Your task to perform on an android device: Check the weather Image 0: 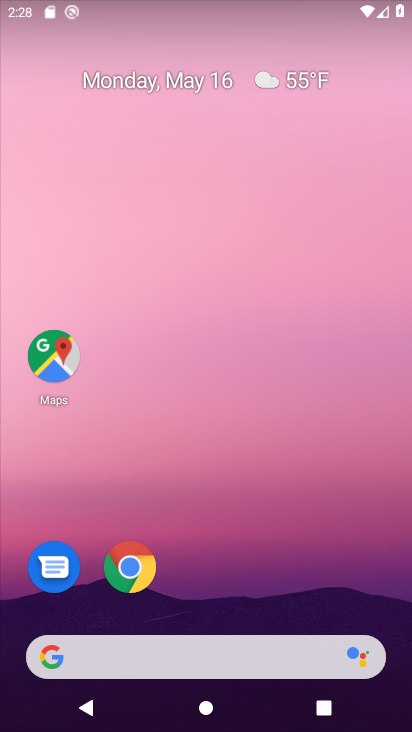
Step 0: click (291, 78)
Your task to perform on an android device: Check the weather Image 1: 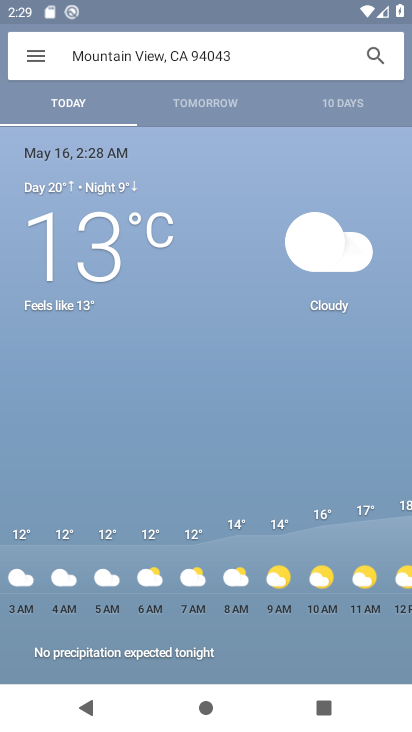
Step 1: task complete